Your task to perform on an android device: open a bookmark in the chrome app Image 0: 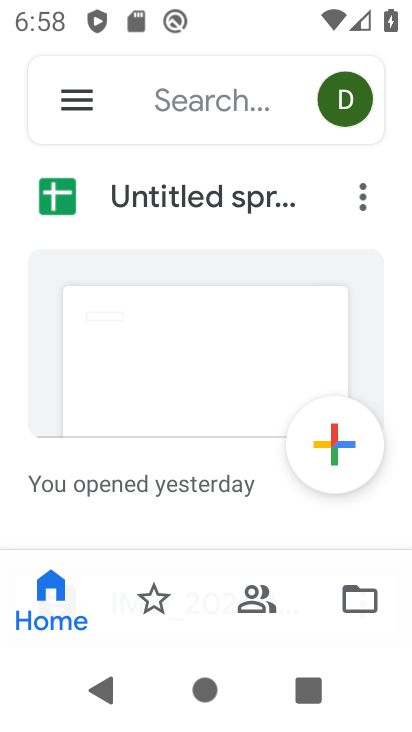
Step 0: press home button
Your task to perform on an android device: open a bookmark in the chrome app Image 1: 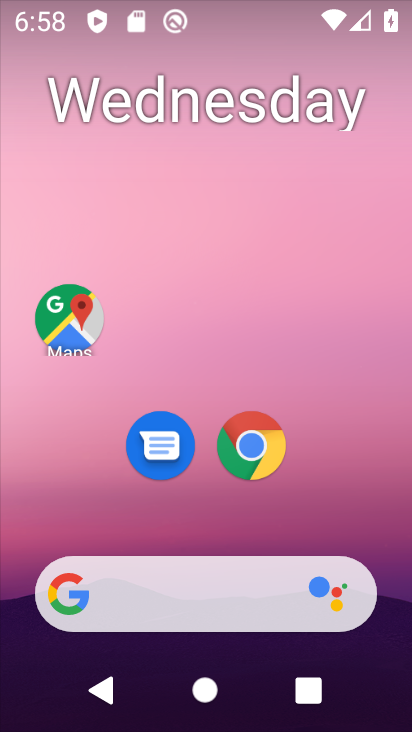
Step 1: click (258, 446)
Your task to perform on an android device: open a bookmark in the chrome app Image 2: 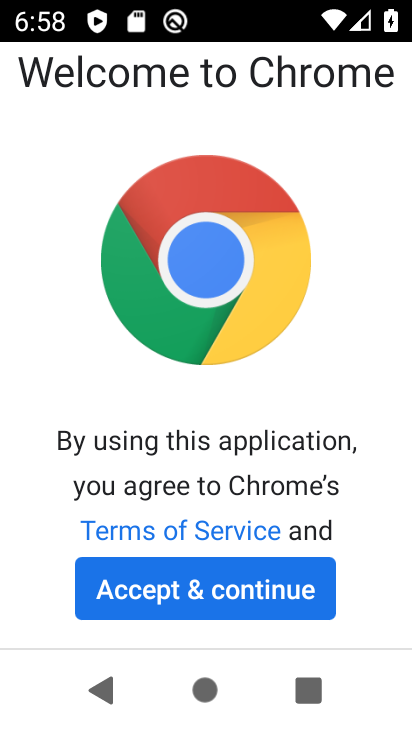
Step 2: click (233, 588)
Your task to perform on an android device: open a bookmark in the chrome app Image 3: 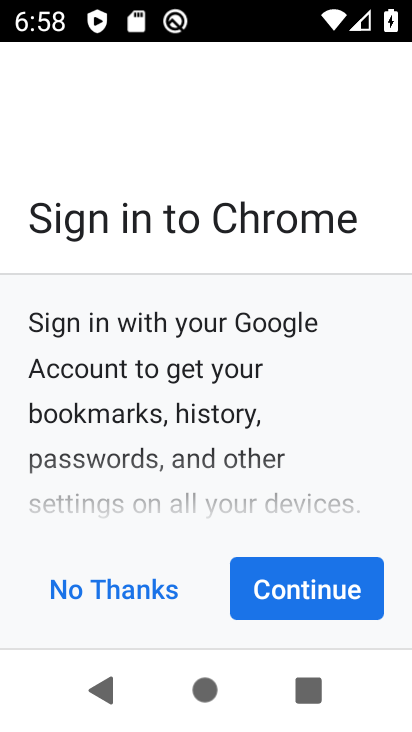
Step 3: click (257, 585)
Your task to perform on an android device: open a bookmark in the chrome app Image 4: 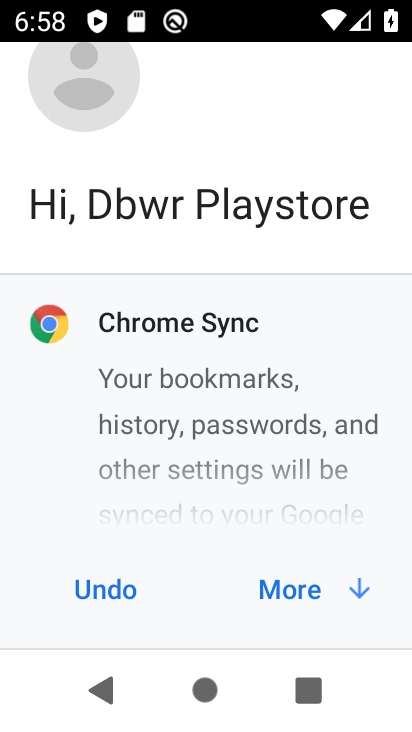
Step 4: click (274, 597)
Your task to perform on an android device: open a bookmark in the chrome app Image 5: 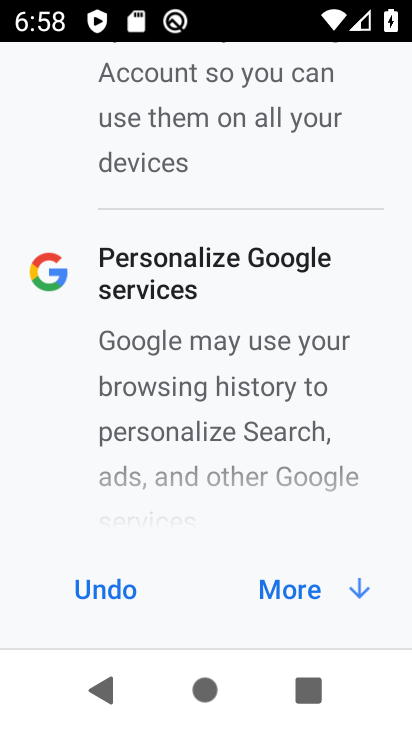
Step 5: click (274, 597)
Your task to perform on an android device: open a bookmark in the chrome app Image 6: 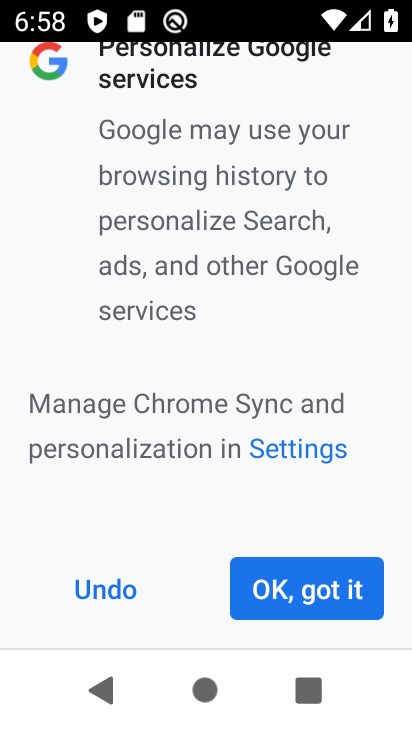
Step 6: click (274, 597)
Your task to perform on an android device: open a bookmark in the chrome app Image 7: 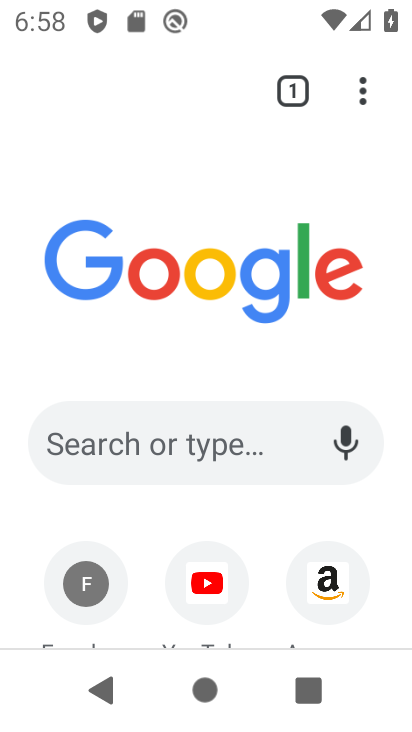
Step 7: click (361, 91)
Your task to perform on an android device: open a bookmark in the chrome app Image 8: 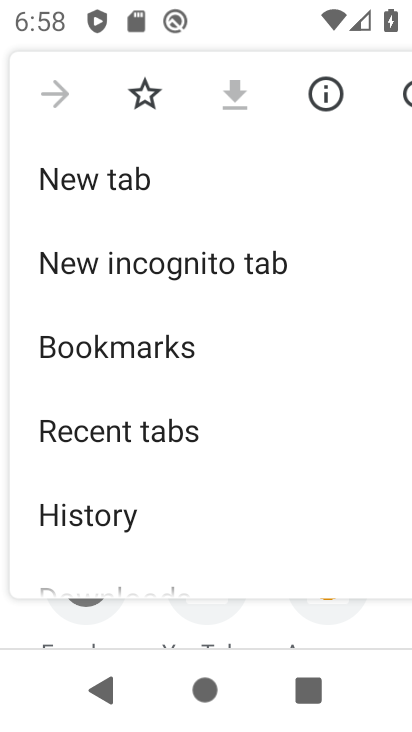
Step 8: click (142, 353)
Your task to perform on an android device: open a bookmark in the chrome app Image 9: 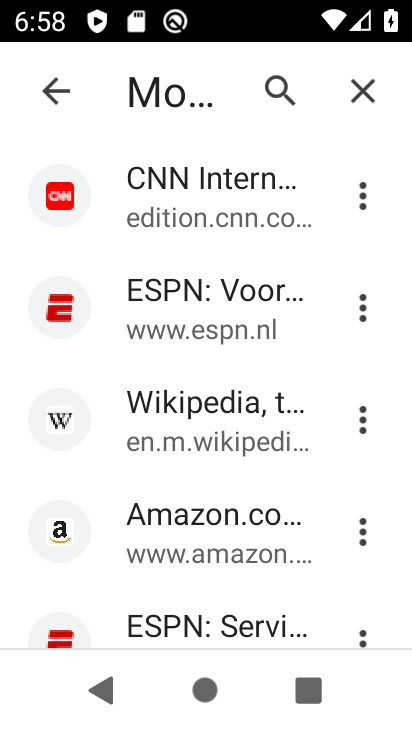
Step 9: task complete